Your task to perform on an android device: Open calendar and show me the second week of next month Image 0: 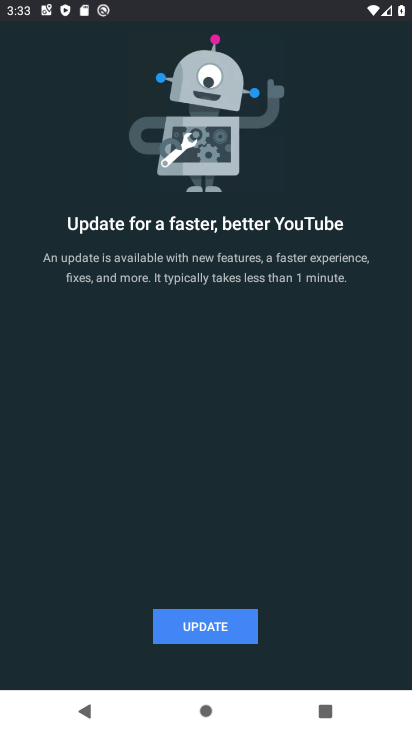
Step 0: press home button
Your task to perform on an android device: Open calendar and show me the second week of next month Image 1: 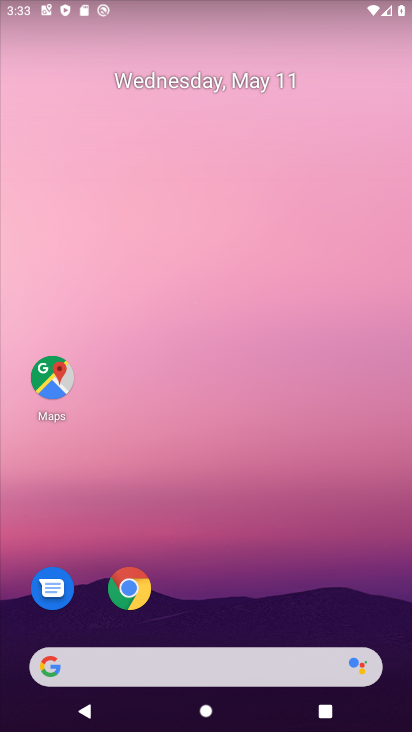
Step 1: drag from (215, 404) to (327, 0)
Your task to perform on an android device: Open calendar and show me the second week of next month Image 2: 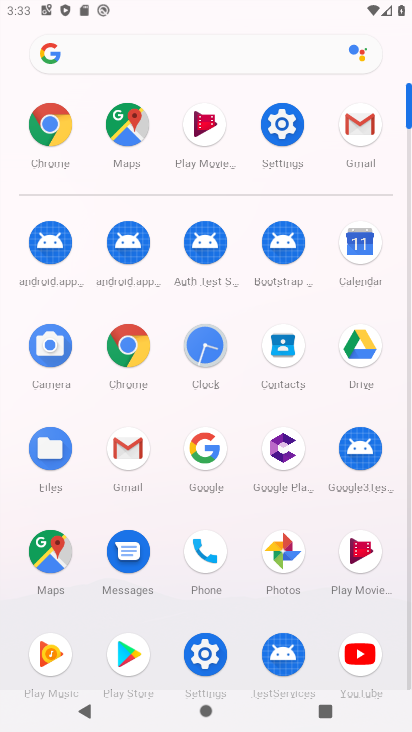
Step 2: click (364, 274)
Your task to perform on an android device: Open calendar and show me the second week of next month Image 3: 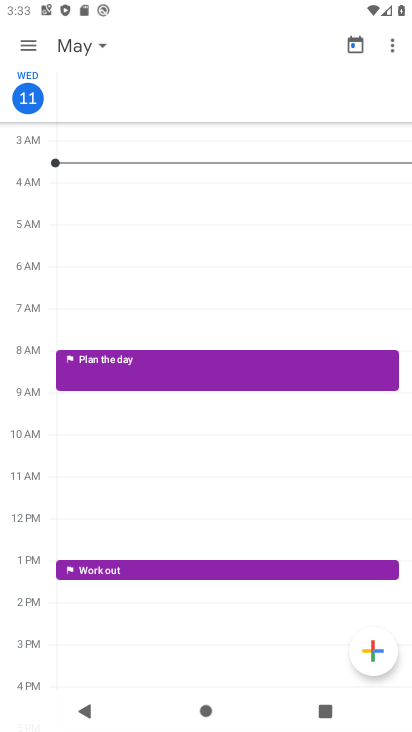
Step 3: click (34, 39)
Your task to perform on an android device: Open calendar and show me the second week of next month Image 4: 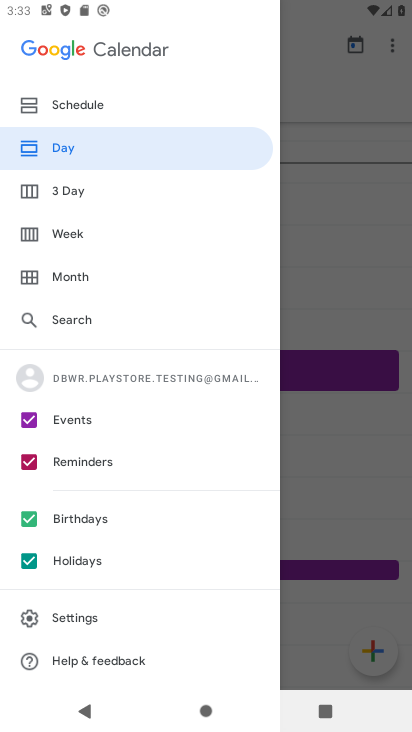
Step 4: click (65, 239)
Your task to perform on an android device: Open calendar and show me the second week of next month Image 5: 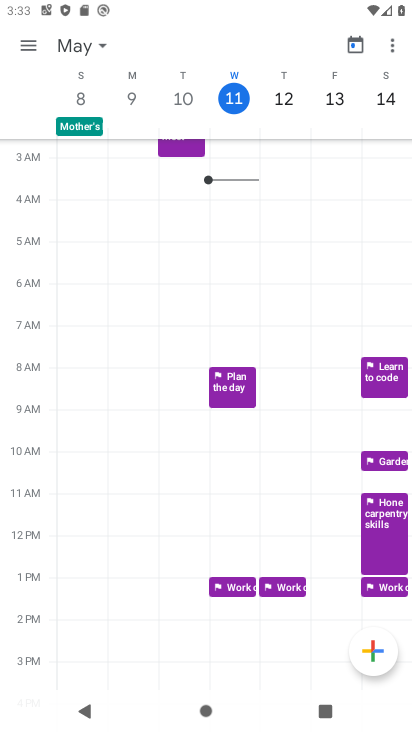
Step 5: task complete